Your task to perform on an android device: change the clock display to show seconds Image 0: 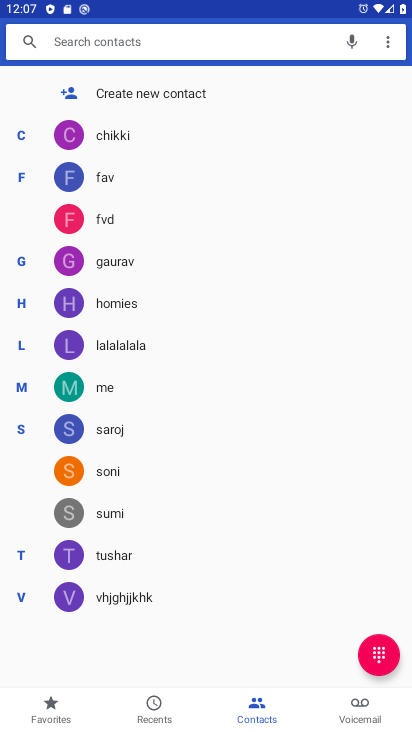
Step 0: press home button
Your task to perform on an android device: change the clock display to show seconds Image 1: 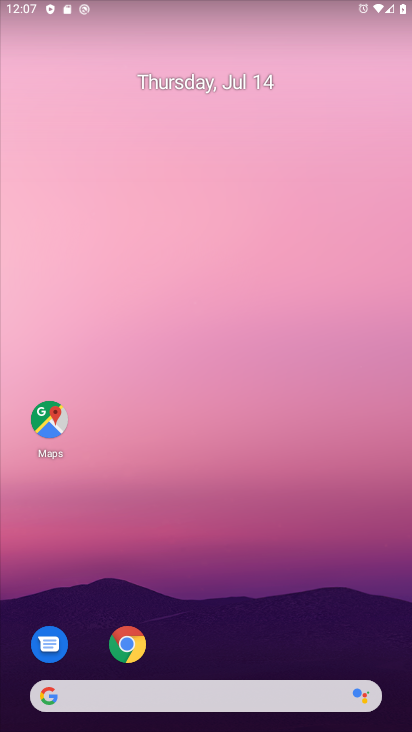
Step 1: drag from (204, 666) to (186, 154)
Your task to perform on an android device: change the clock display to show seconds Image 2: 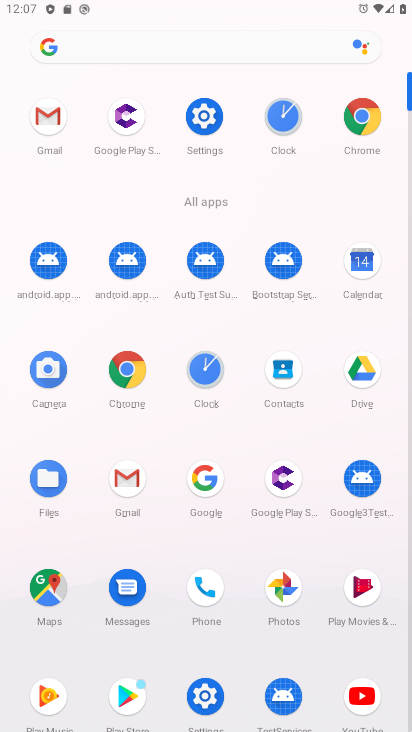
Step 2: click (205, 368)
Your task to perform on an android device: change the clock display to show seconds Image 3: 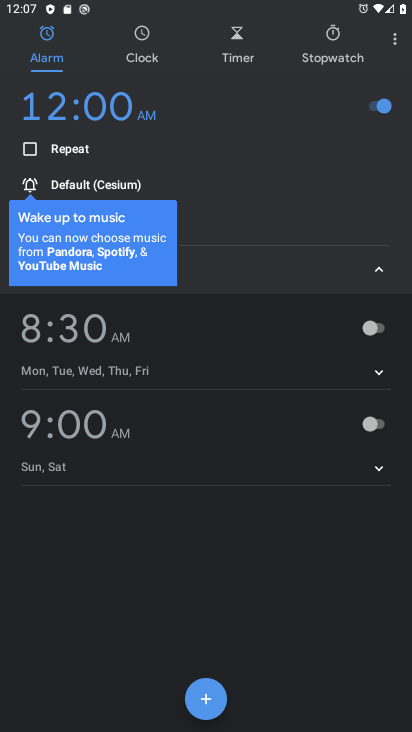
Step 3: click (393, 44)
Your task to perform on an android device: change the clock display to show seconds Image 4: 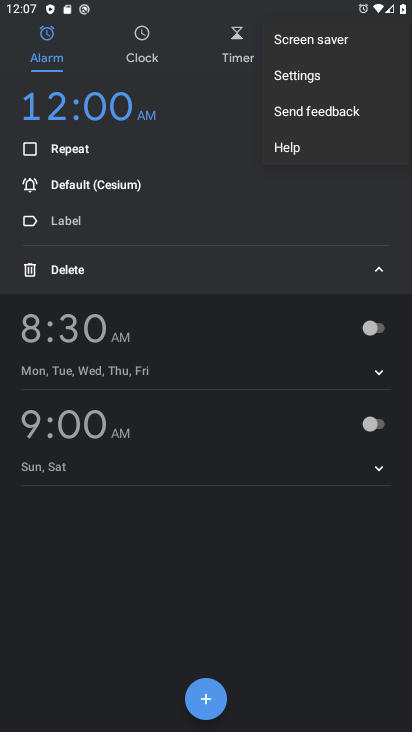
Step 4: click (321, 72)
Your task to perform on an android device: change the clock display to show seconds Image 5: 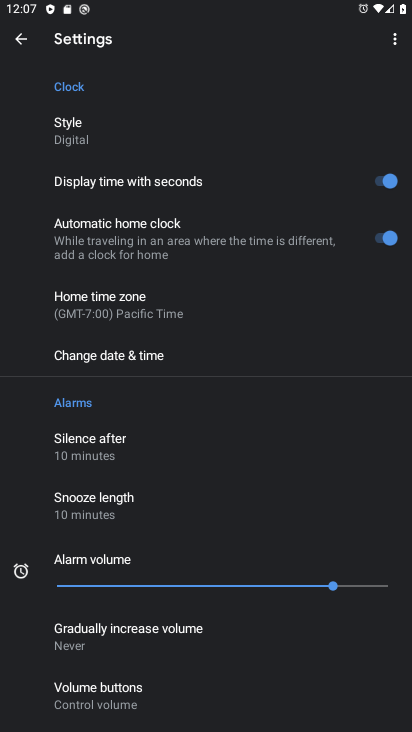
Step 5: click (372, 181)
Your task to perform on an android device: change the clock display to show seconds Image 6: 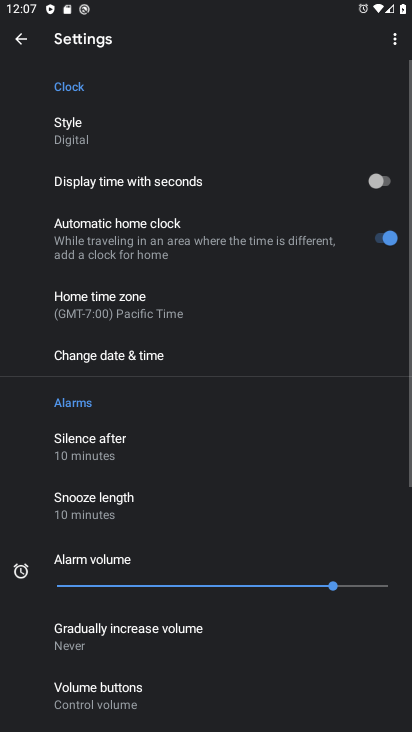
Step 6: task complete